Your task to perform on an android device: Show me the alarms in the clock app Image 0: 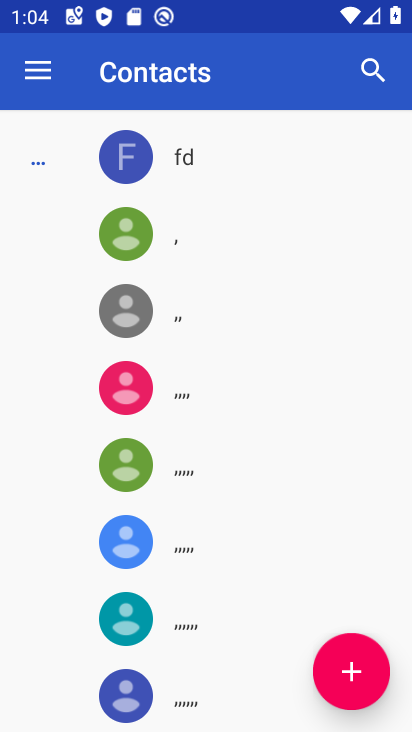
Step 0: press home button
Your task to perform on an android device: Show me the alarms in the clock app Image 1: 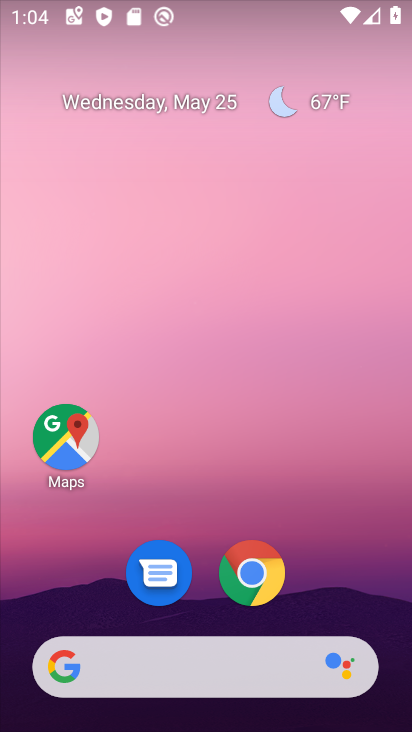
Step 1: drag from (89, 632) to (213, 128)
Your task to perform on an android device: Show me the alarms in the clock app Image 2: 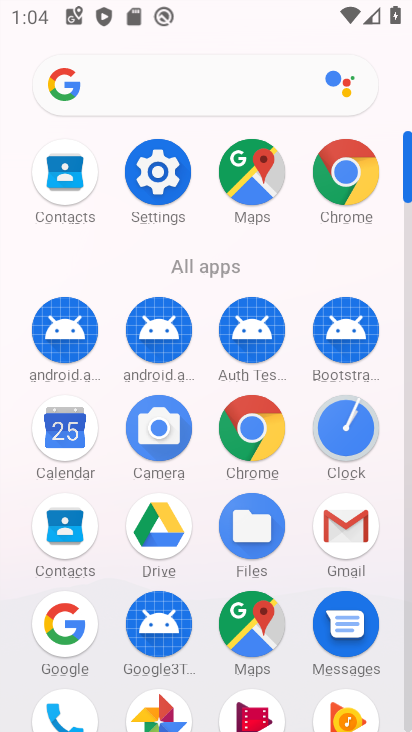
Step 2: click (363, 444)
Your task to perform on an android device: Show me the alarms in the clock app Image 3: 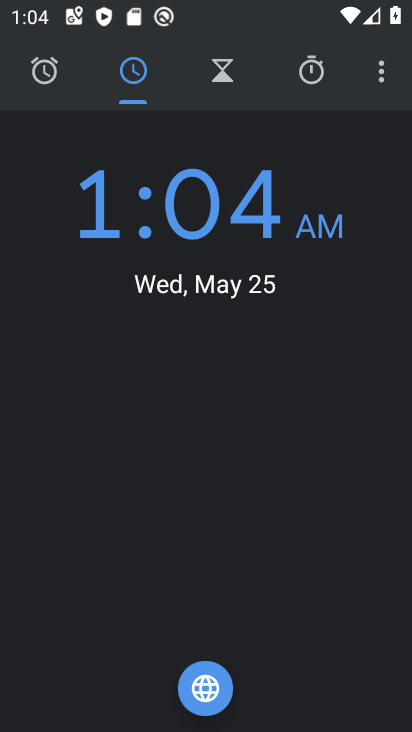
Step 3: click (50, 94)
Your task to perform on an android device: Show me the alarms in the clock app Image 4: 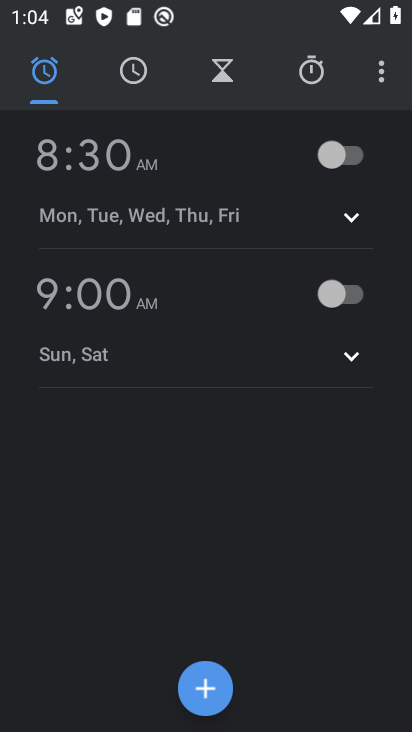
Step 4: click (372, 286)
Your task to perform on an android device: Show me the alarms in the clock app Image 5: 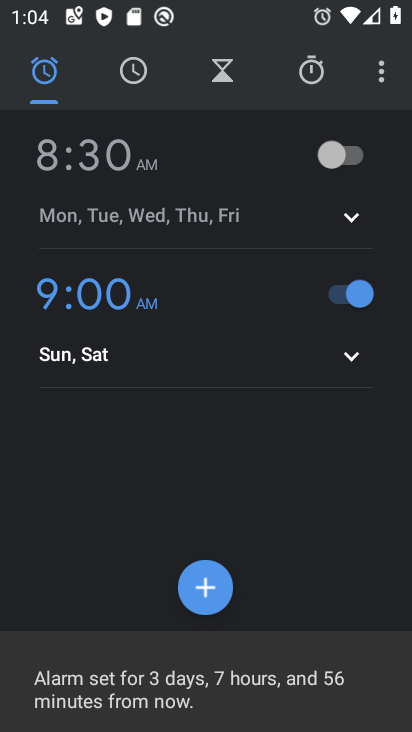
Step 5: task complete